Your task to perform on an android device: clear all cookies in the chrome app Image 0: 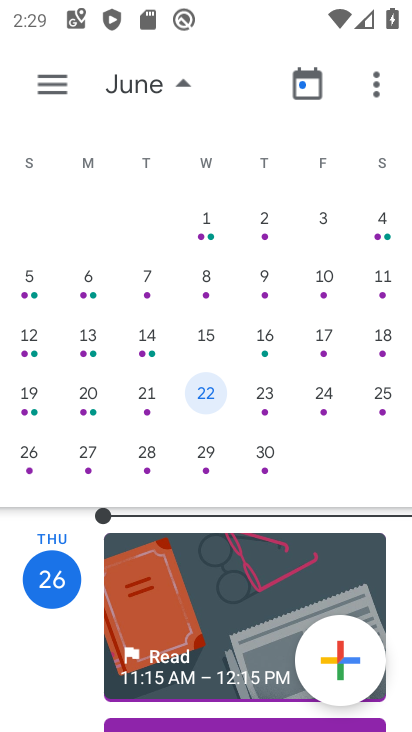
Step 0: press home button
Your task to perform on an android device: clear all cookies in the chrome app Image 1: 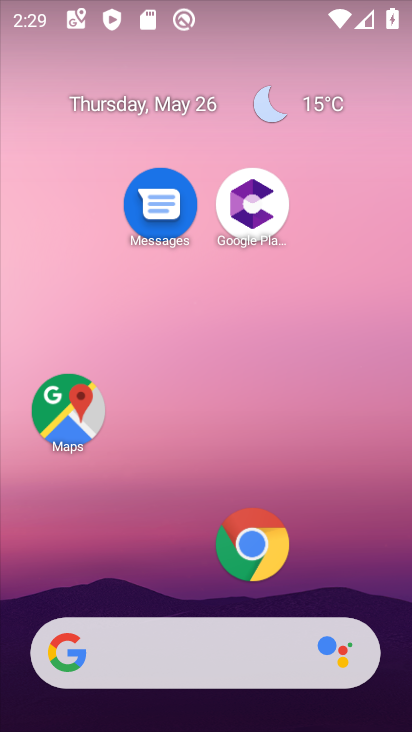
Step 1: click (244, 558)
Your task to perform on an android device: clear all cookies in the chrome app Image 2: 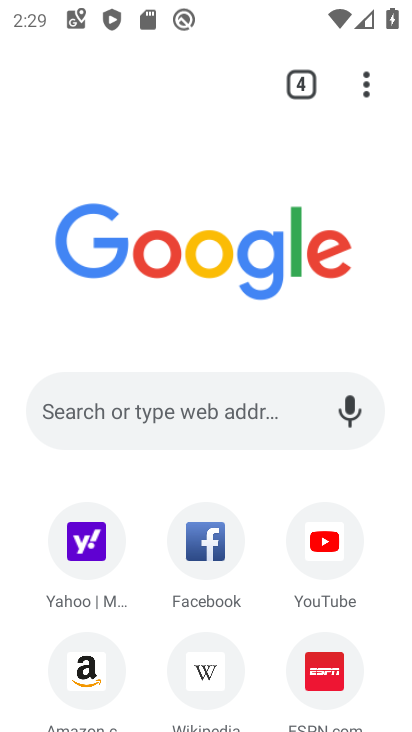
Step 2: click (367, 77)
Your task to perform on an android device: clear all cookies in the chrome app Image 3: 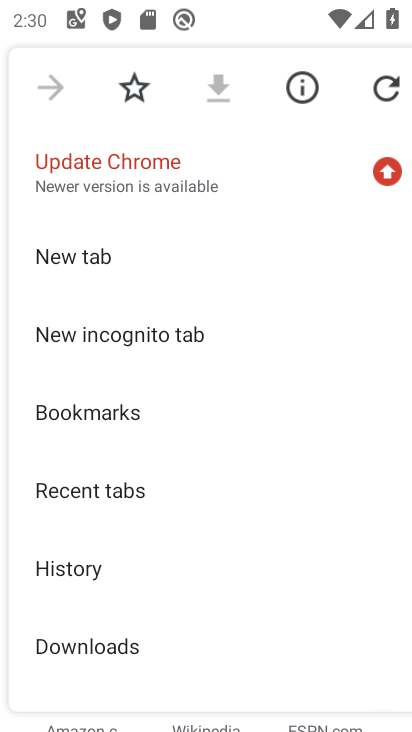
Step 3: drag from (72, 687) to (86, 285)
Your task to perform on an android device: clear all cookies in the chrome app Image 4: 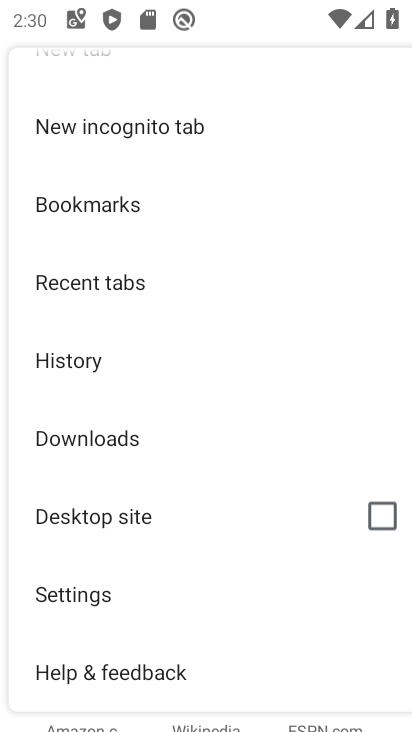
Step 4: drag from (168, 570) to (156, 85)
Your task to perform on an android device: clear all cookies in the chrome app Image 5: 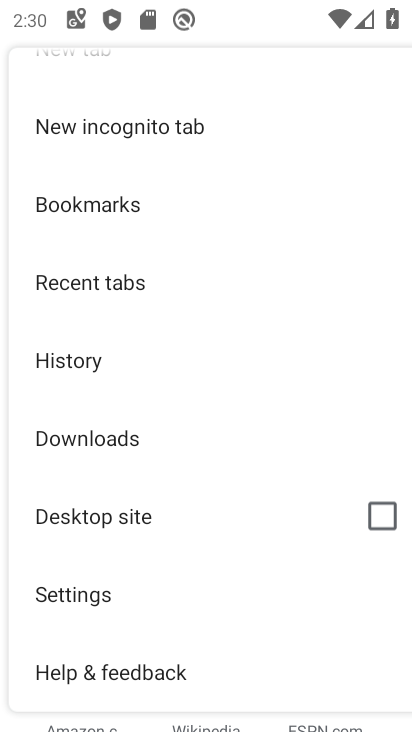
Step 5: click (99, 604)
Your task to perform on an android device: clear all cookies in the chrome app Image 6: 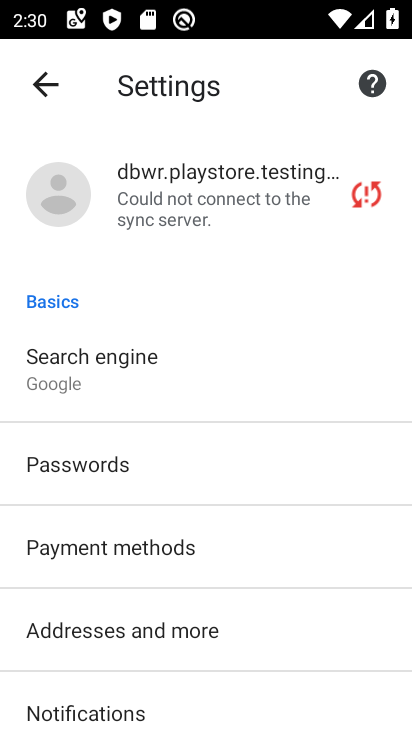
Step 6: click (99, 604)
Your task to perform on an android device: clear all cookies in the chrome app Image 7: 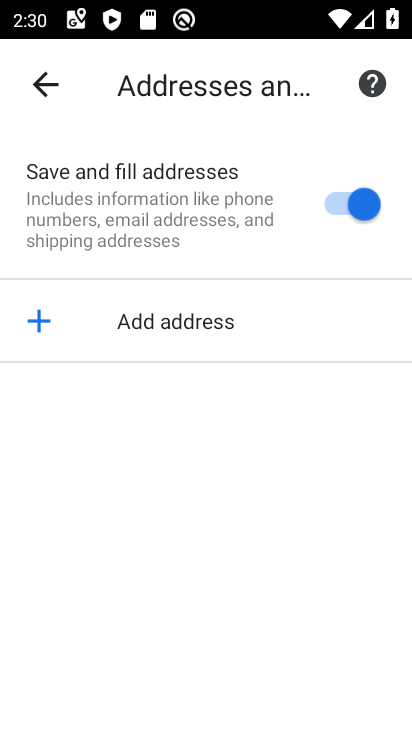
Step 7: click (43, 74)
Your task to perform on an android device: clear all cookies in the chrome app Image 8: 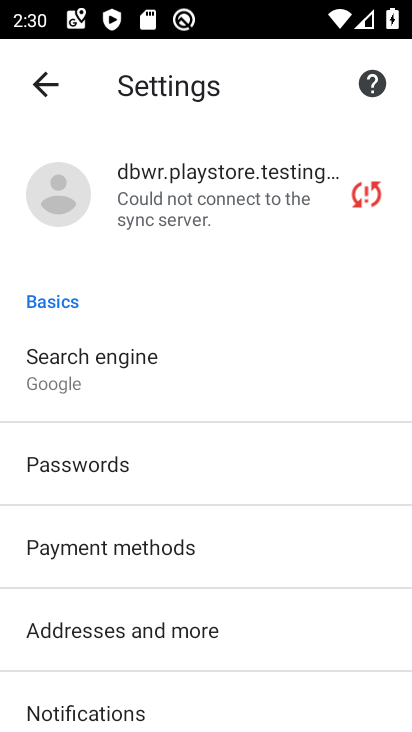
Step 8: drag from (98, 575) to (218, 107)
Your task to perform on an android device: clear all cookies in the chrome app Image 9: 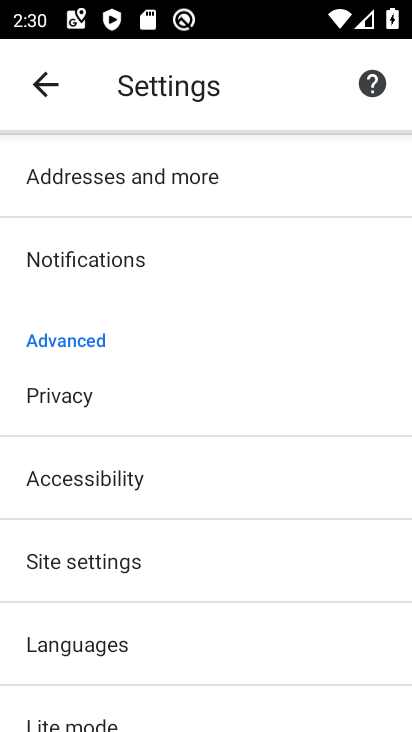
Step 9: drag from (137, 660) to (199, 225)
Your task to perform on an android device: clear all cookies in the chrome app Image 10: 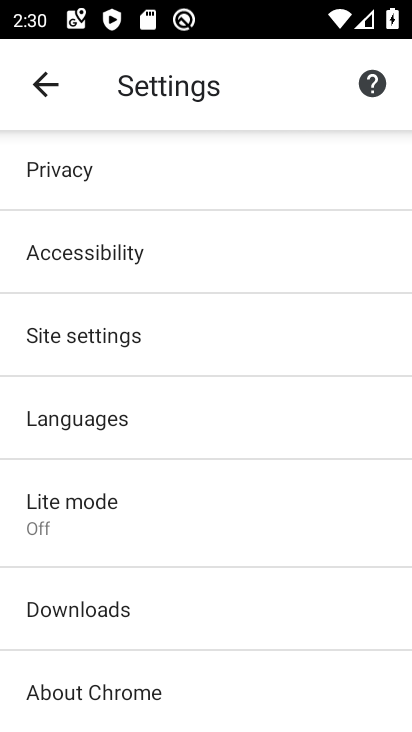
Step 10: click (35, 72)
Your task to perform on an android device: clear all cookies in the chrome app Image 11: 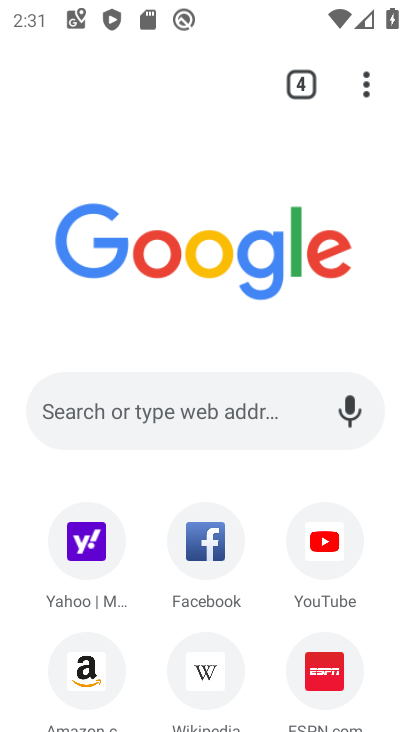
Step 11: click (373, 78)
Your task to perform on an android device: clear all cookies in the chrome app Image 12: 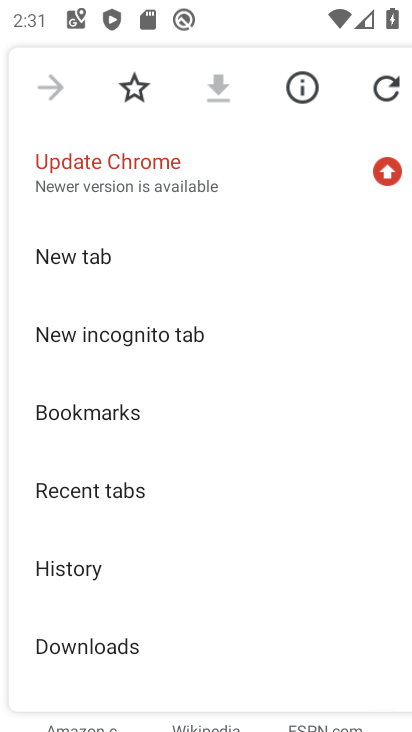
Step 12: drag from (106, 593) to (188, 6)
Your task to perform on an android device: clear all cookies in the chrome app Image 13: 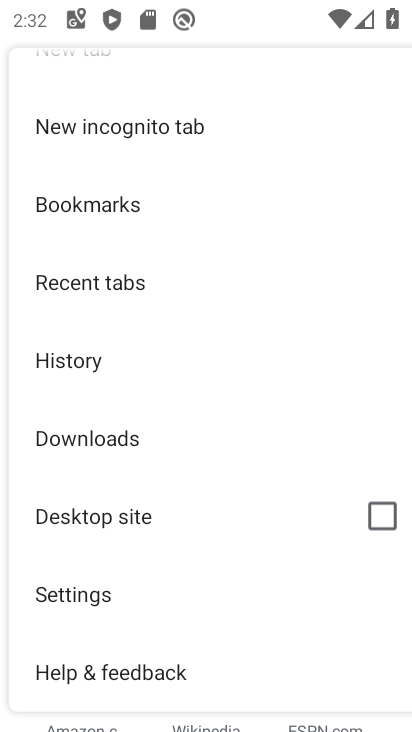
Step 13: click (65, 367)
Your task to perform on an android device: clear all cookies in the chrome app Image 14: 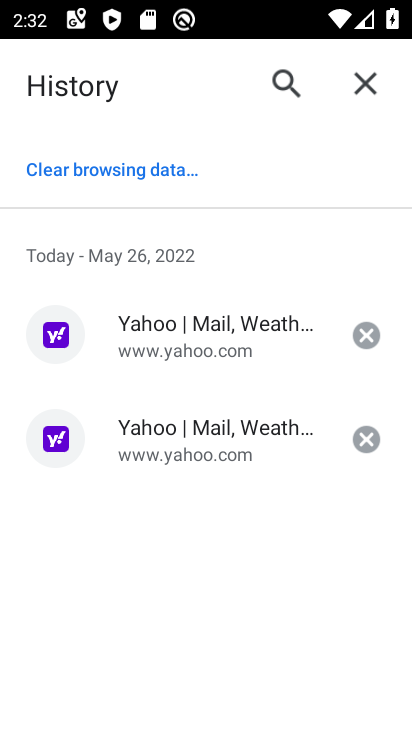
Step 14: click (149, 177)
Your task to perform on an android device: clear all cookies in the chrome app Image 15: 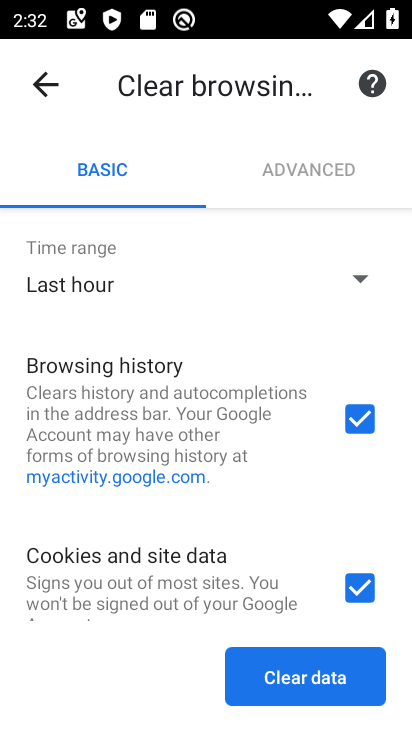
Step 15: click (350, 422)
Your task to perform on an android device: clear all cookies in the chrome app Image 16: 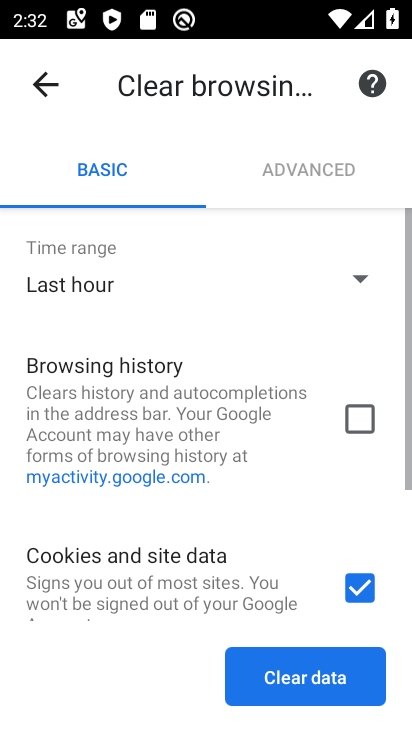
Step 16: click (308, 695)
Your task to perform on an android device: clear all cookies in the chrome app Image 17: 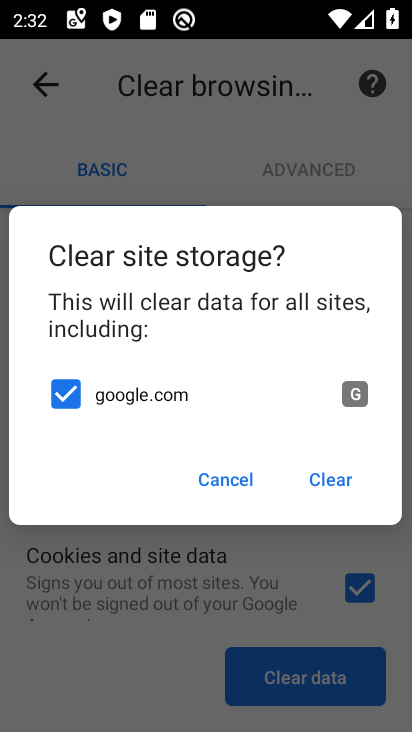
Step 17: click (326, 491)
Your task to perform on an android device: clear all cookies in the chrome app Image 18: 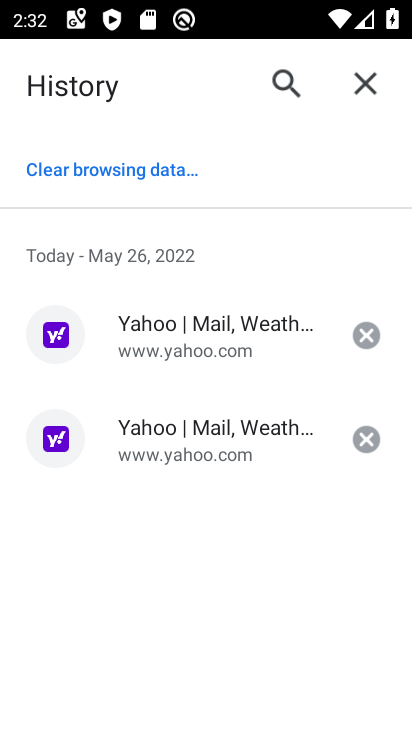
Step 18: task complete